Your task to perform on an android device: Open notification settings Image 0: 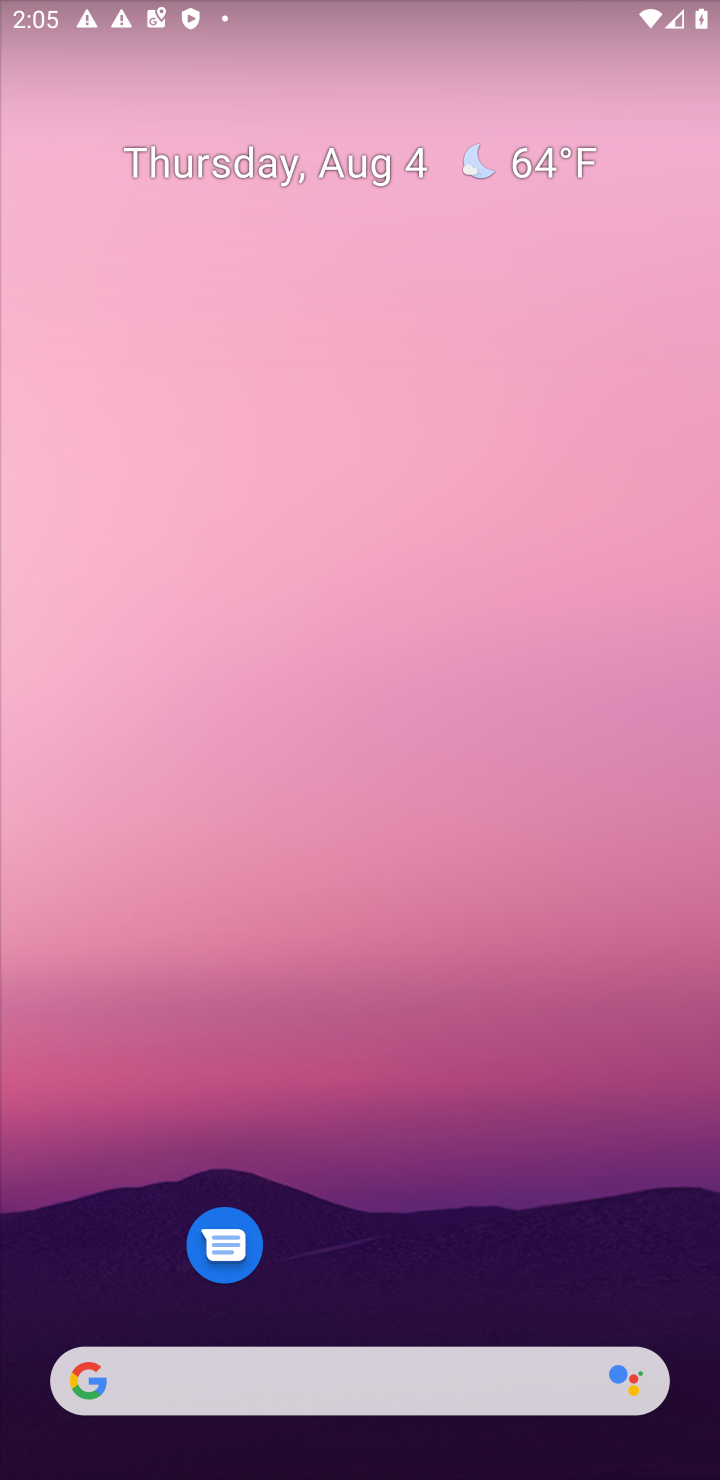
Step 0: drag from (378, 1248) to (444, 580)
Your task to perform on an android device: Open notification settings Image 1: 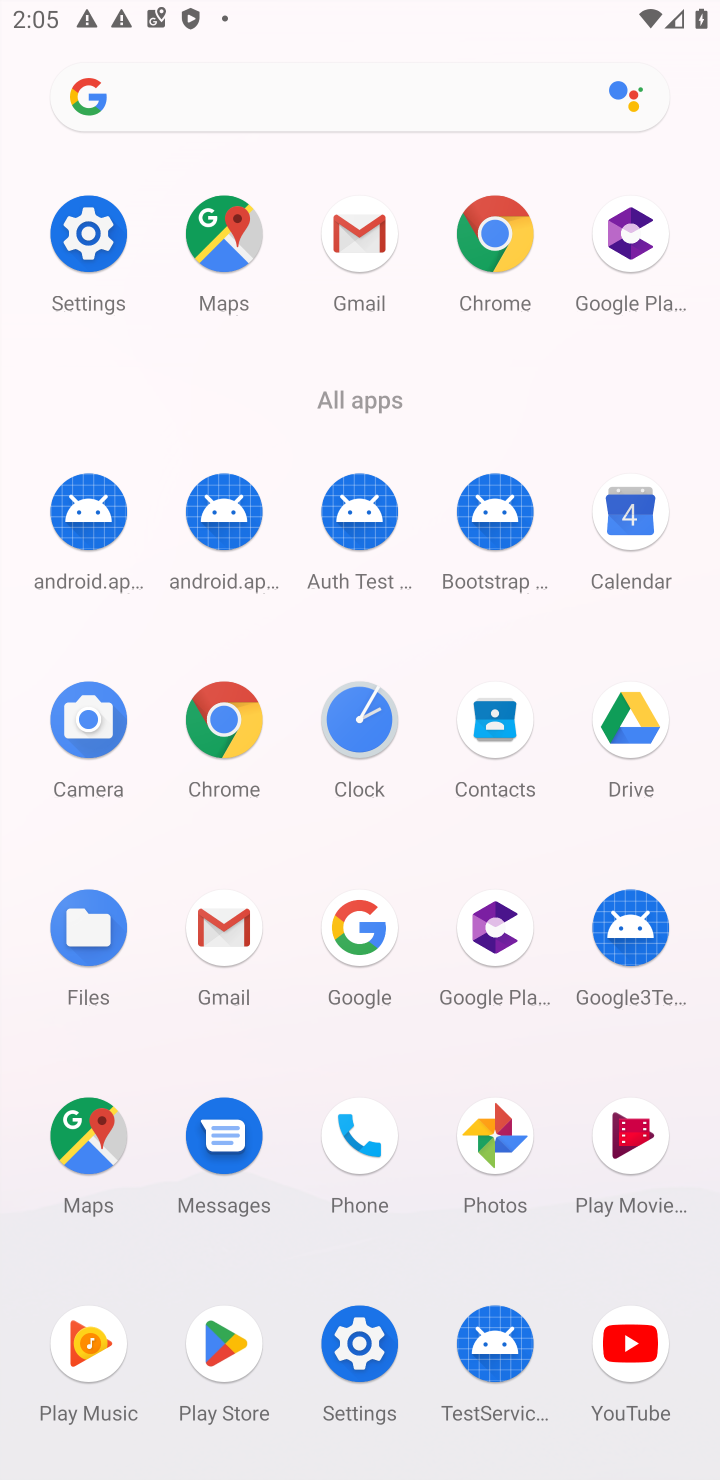
Step 1: click (78, 211)
Your task to perform on an android device: Open notification settings Image 2: 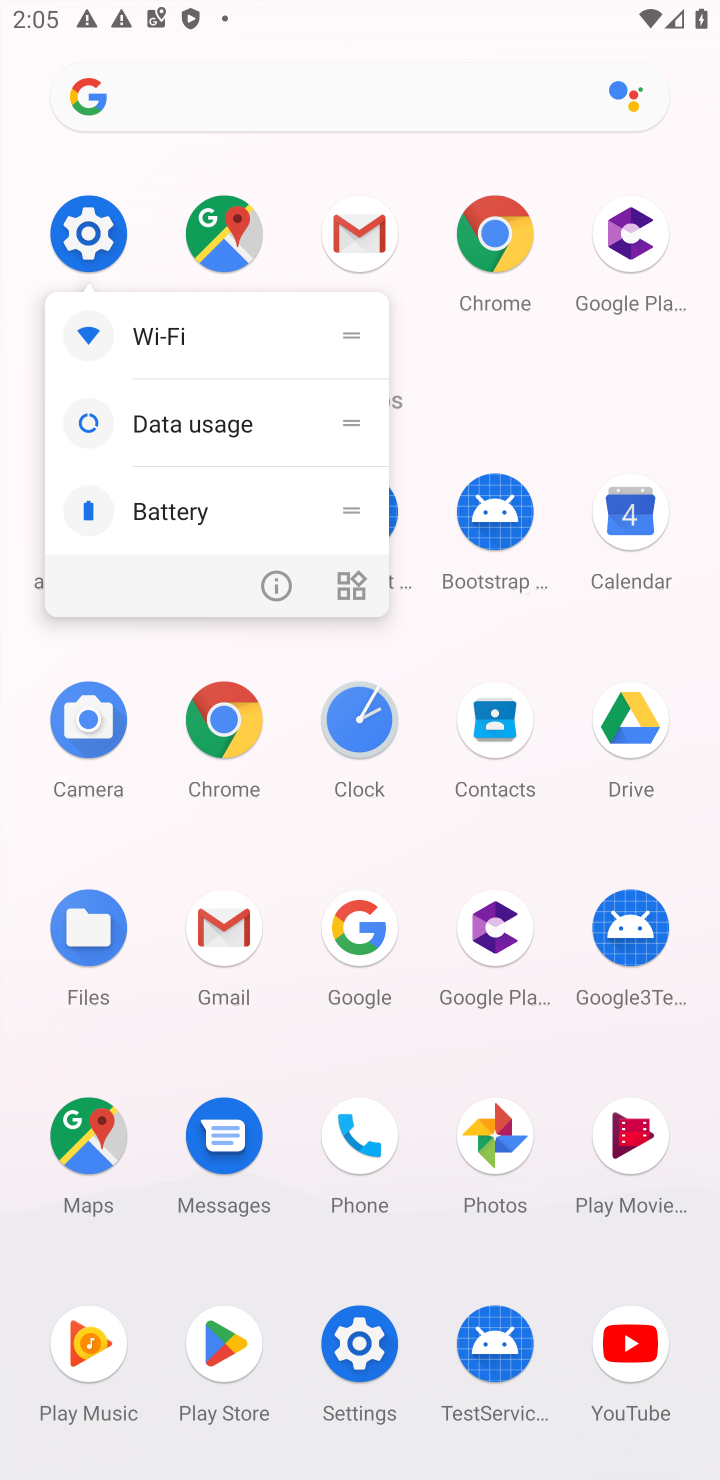
Step 2: click (86, 228)
Your task to perform on an android device: Open notification settings Image 3: 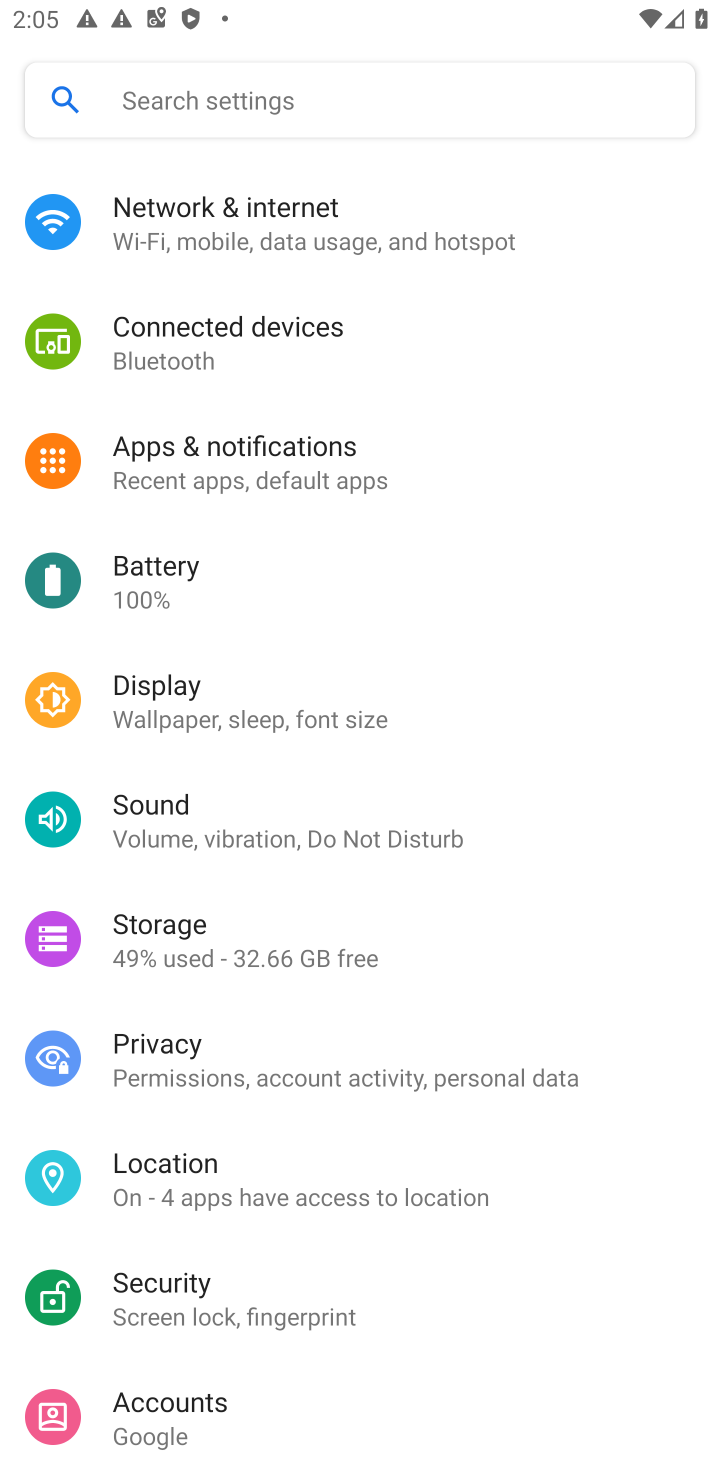
Step 3: click (89, 249)
Your task to perform on an android device: Open notification settings Image 4: 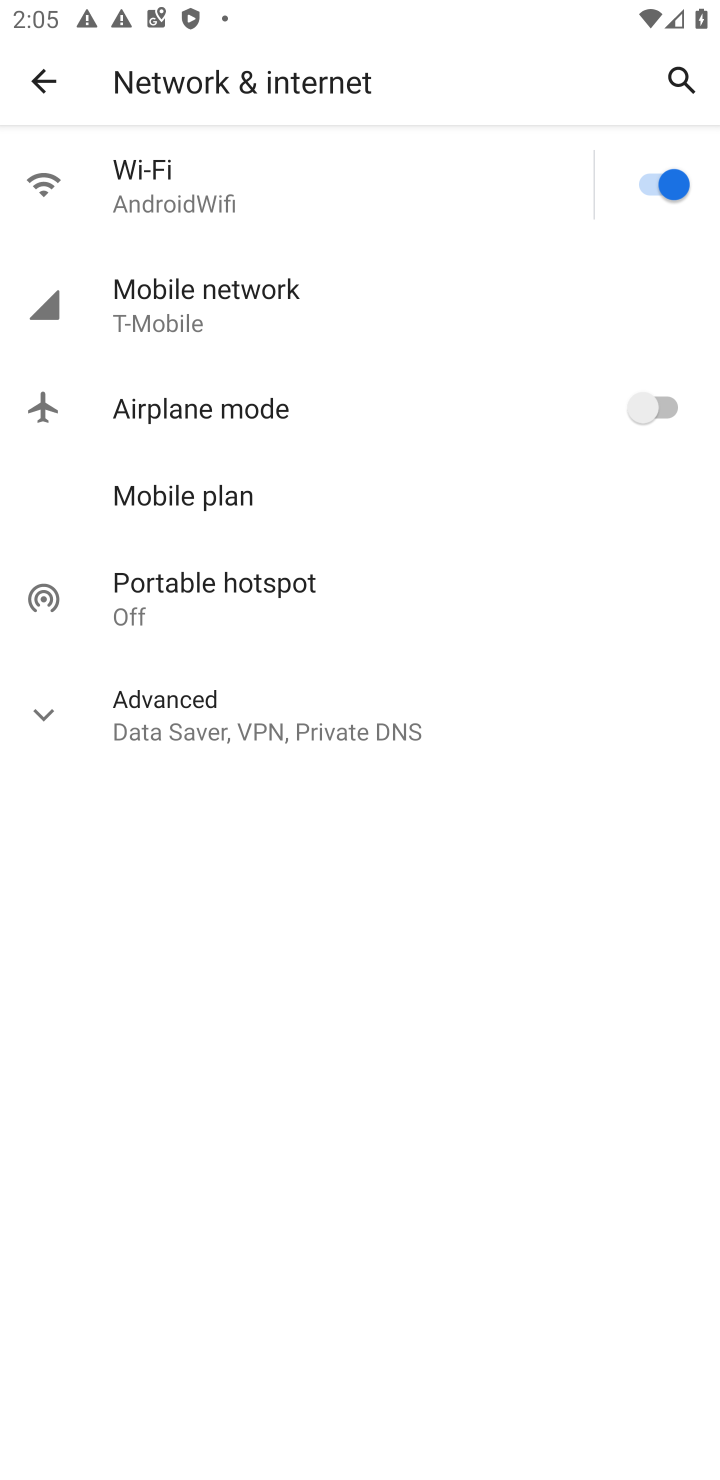
Step 4: click (55, 58)
Your task to perform on an android device: Open notification settings Image 5: 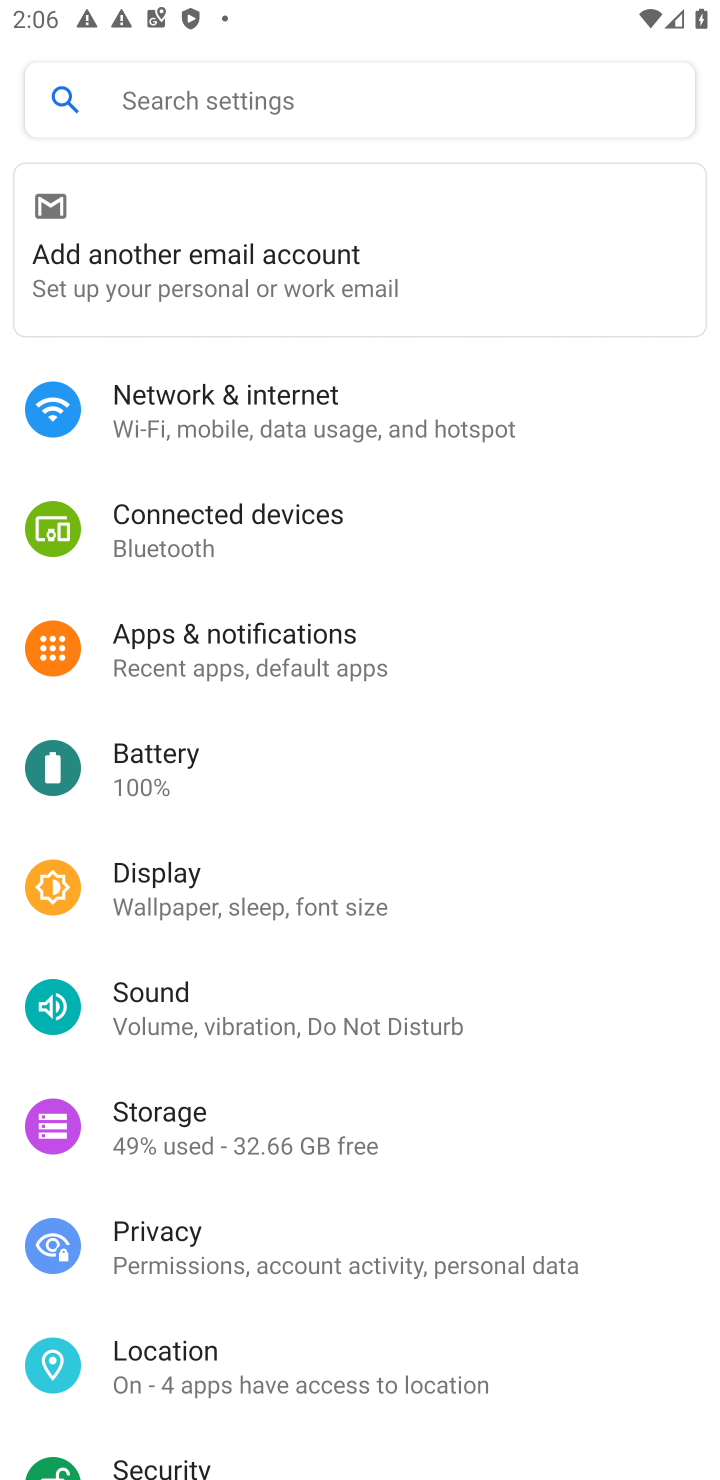
Step 5: click (258, 653)
Your task to perform on an android device: Open notification settings Image 6: 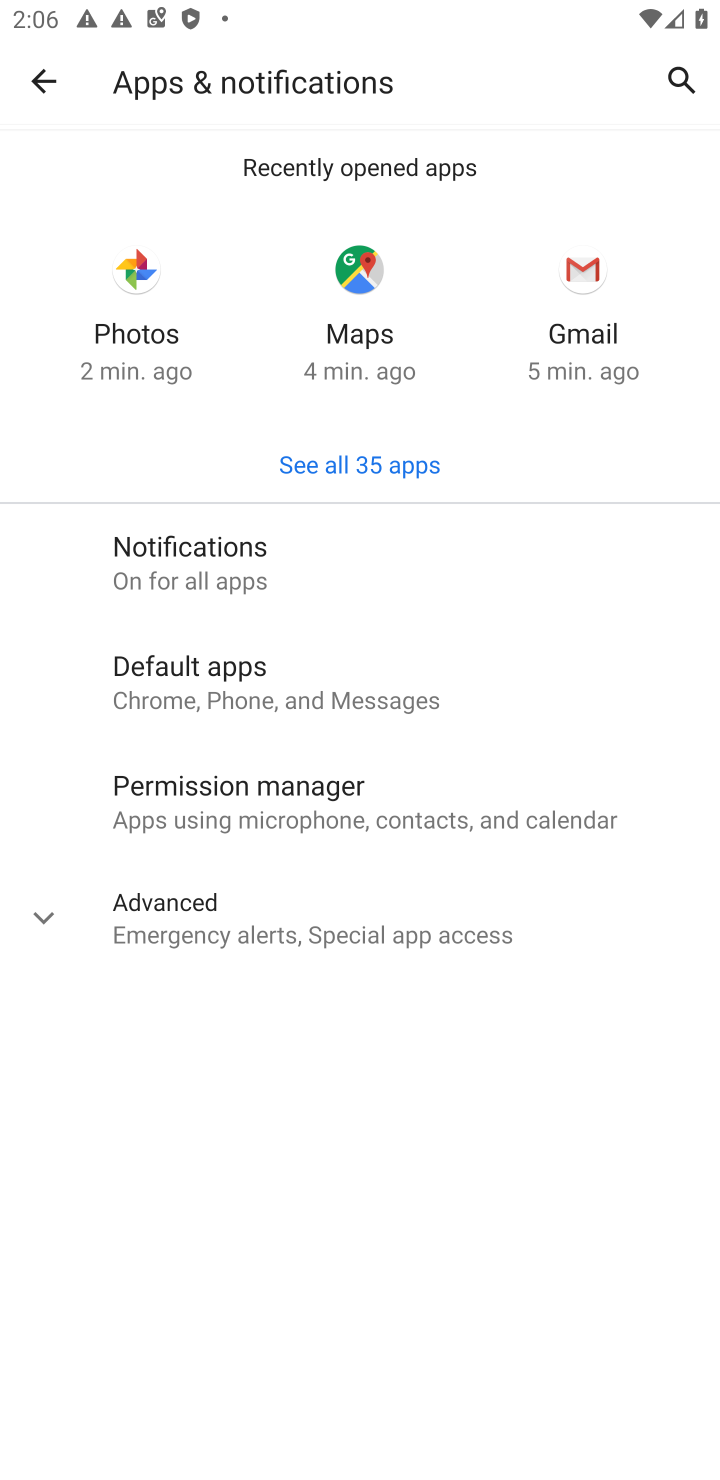
Step 6: click (235, 580)
Your task to perform on an android device: Open notification settings Image 7: 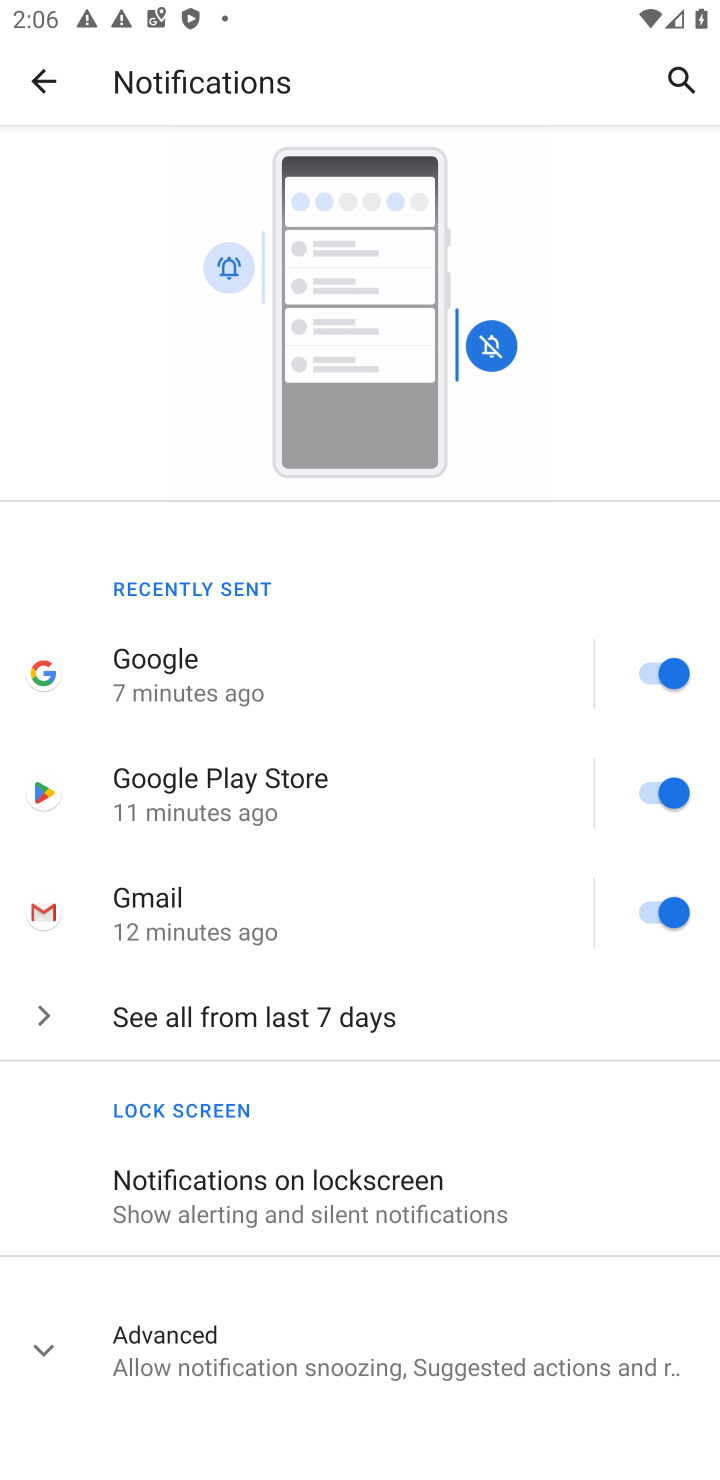
Step 7: task complete